Your task to perform on an android device: open sync settings in chrome Image 0: 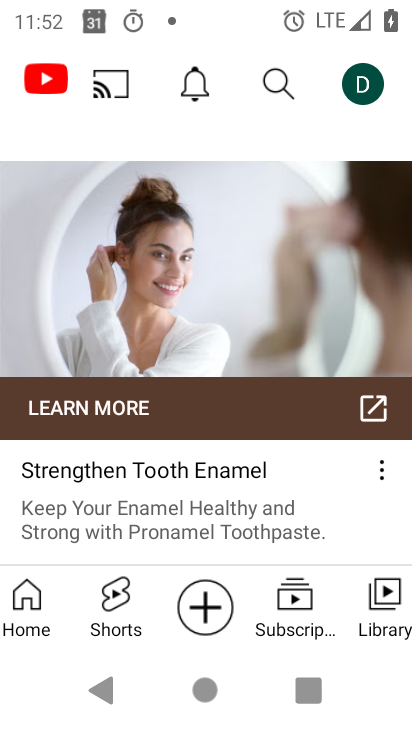
Step 0: press home button
Your task to perform on an android device: open sync settings in chrome Image 1: 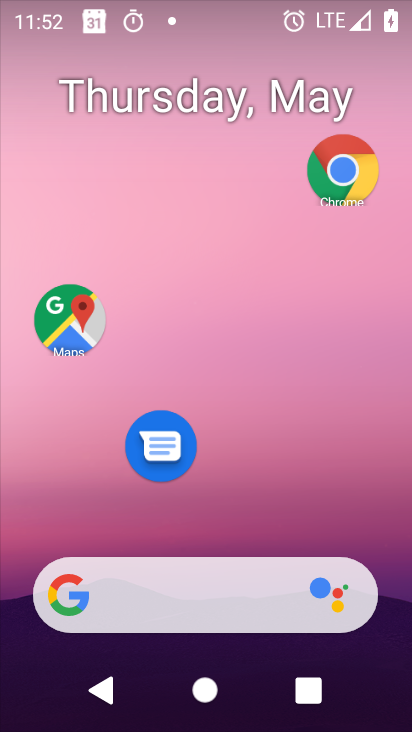
Step 1: drag from (255, 581) to (336, 4)
Your task to perform on an android device: open sync settings in chrome Image 2: 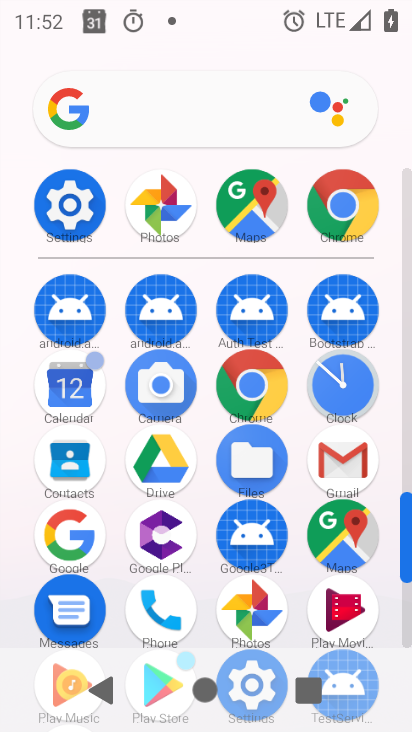
Step 2: click (253, 395)
Your task to perform on an android device: open sync settings in chrome Image 3: 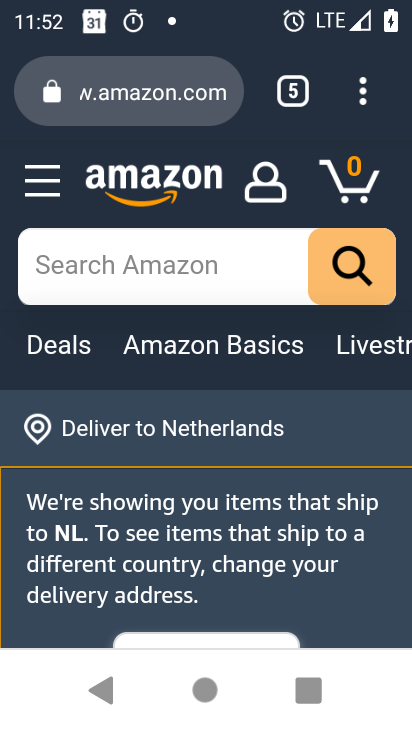
Step 3: drag from (361, 91) to (178, 472)
Your task to perform on an android device: open sync settings in chrome Image 4: 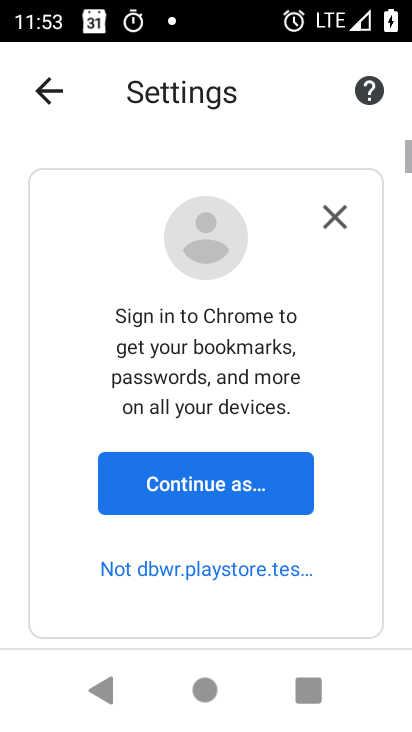
Step 4: drag from (307, 585) to (324, 58)
Your task to perform on an android device: open sync settings in chrome Image 5: 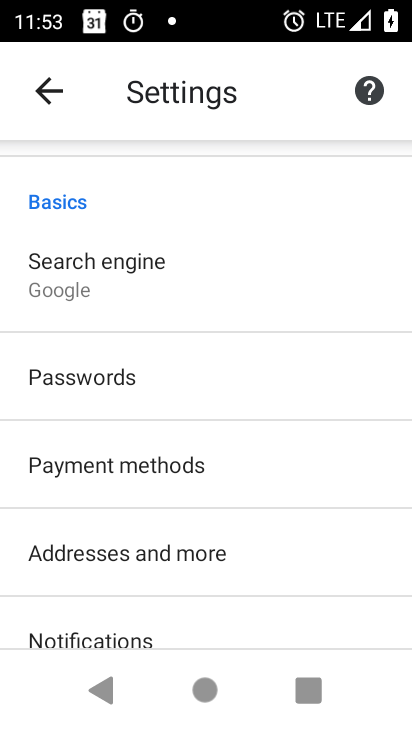
Step 5: drag from (310, 564) to (362, 130)
Your task to perform on an android device: open sync settings in chrome Image 6: 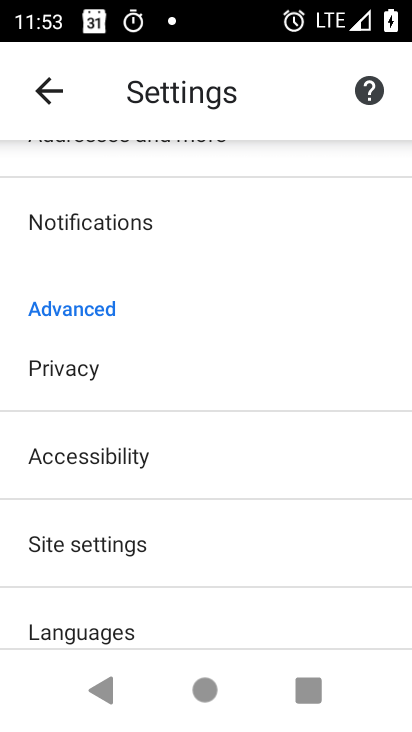
Step 6: drag from (317, 592) to (361, 331)
Your task to perform on an android device: open sync settings in chrome Image 7: 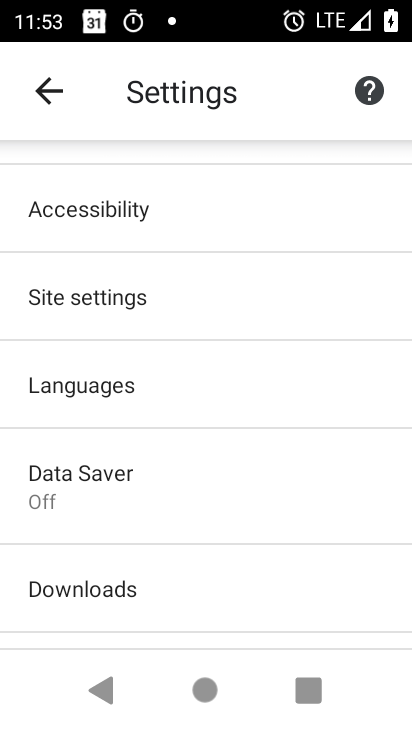
Step 7: click (177, 378)
Your task to perform on an android device: open sync settings in chrome Image 8: 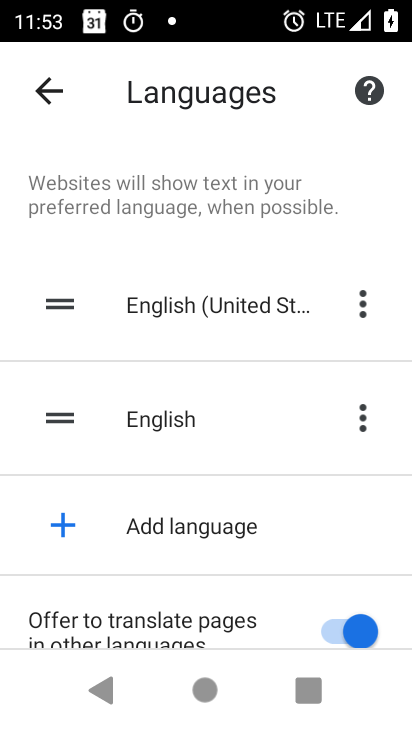
Step 8: press back button
Your task to perform on an android device: open sync settings in chrome Image 9: 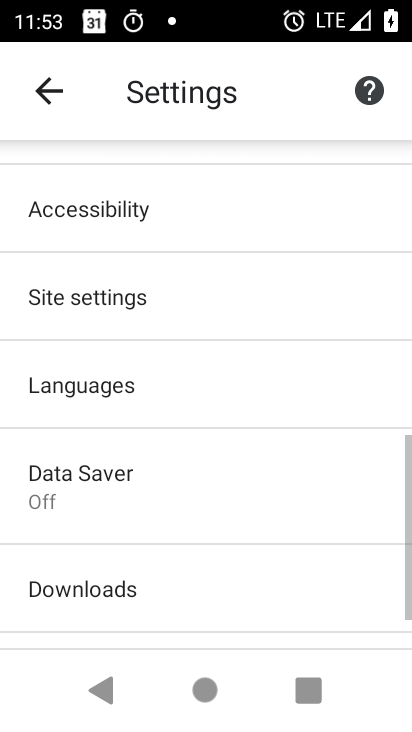
Step 9: click (207, 297)
Your task to perform on an android device: open sync settings in chrome Image 10: 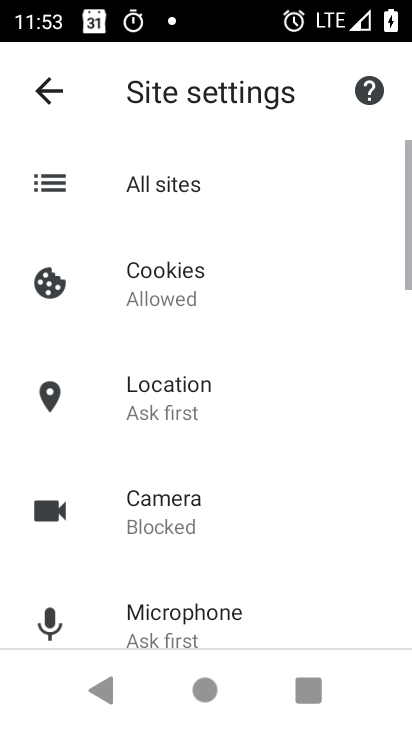
Step 10: drag from (263, 596) to (297, 35)
Your task to perform on an android device: open sync settings in chrome Image 11: 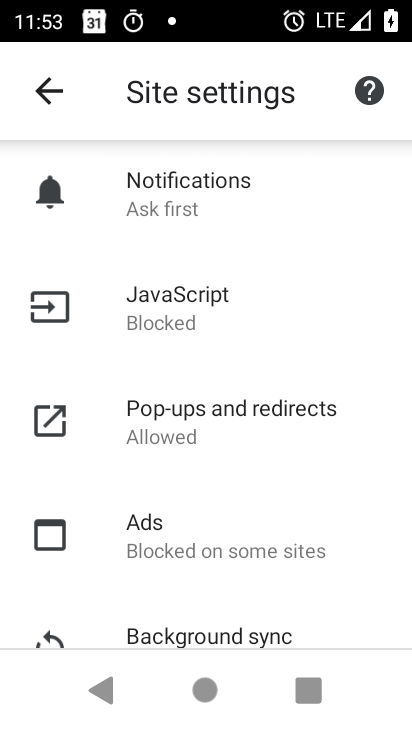
Step 11: drag from (246, 556) to (266, 289)
Your task to perform on an android device: open sync settings in chrome Image 12: 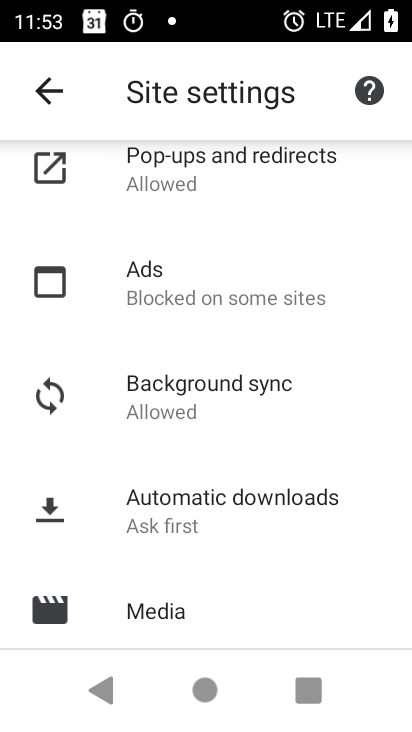
Step 12: click (256, 403)
Your task to perform on an android device: open sync settings in chrome Image 13: 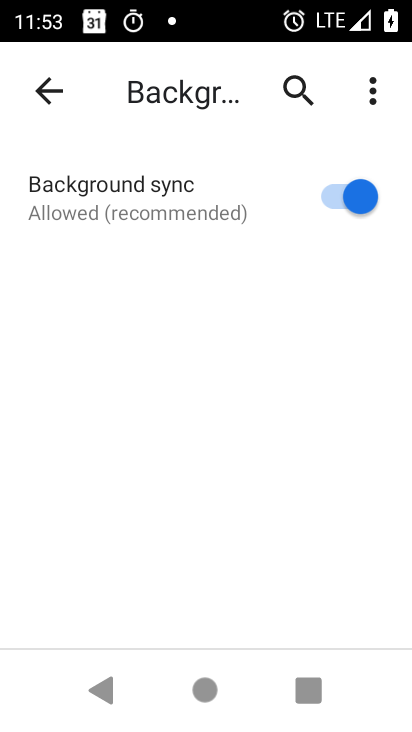
Step 13: task complete